Your task to perform on an android device: Open maps Image 0: 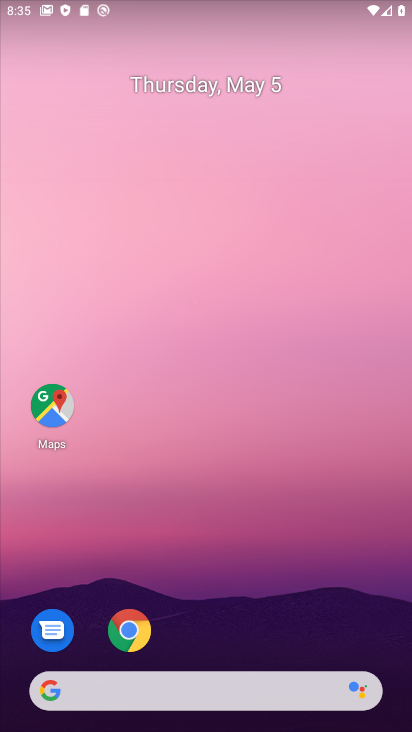
Step 0: drag from (208, 625) to (127, 20)
Your task to perform on an android device: Open maps Image 1: 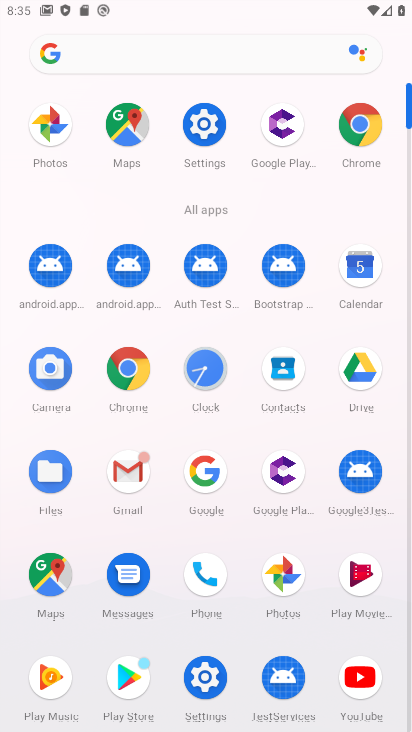
Step 1: click (127, 133)
Your task to perform on an android device: Open maps Image 2: 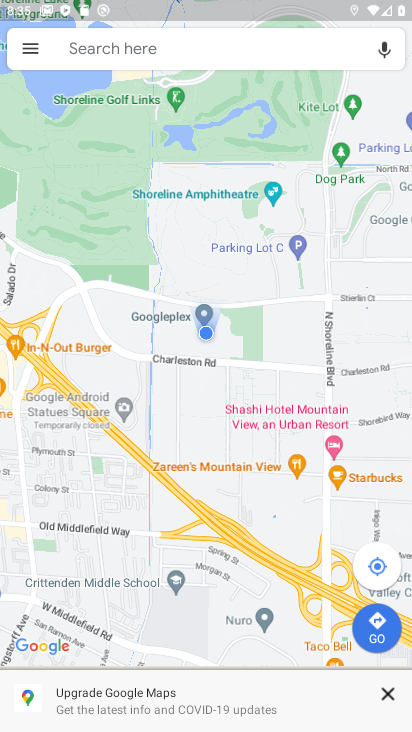
Step 2: task complete